Your task to perform on an android device: Open maps Image 0: 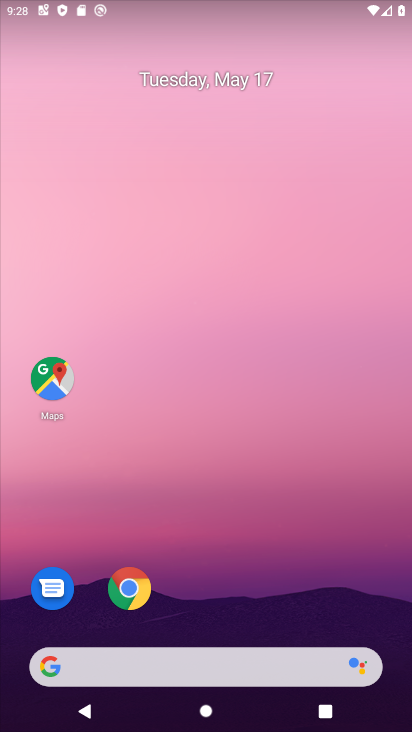
Step 0: click (58, 390)
Your task to perform on an android device: Open maps Image 1: 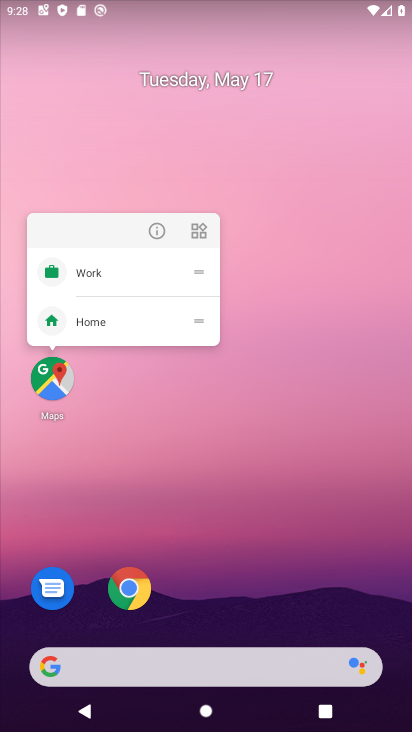
Step 1: click (51, 383)
Your task to perform on an android device: Open maps Image 2: 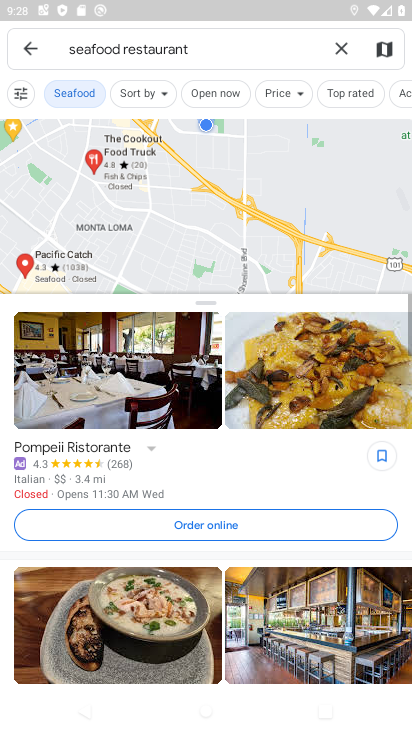
Step 2: click (21, 57)
Your task to perform on an android device: Open maps Image 3: 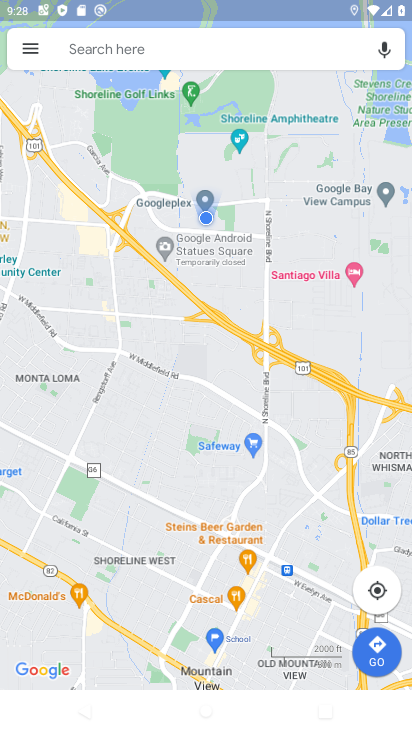
Step 3: task complete